Your task to perform on an android device: Open Yahoo.com Image 0: 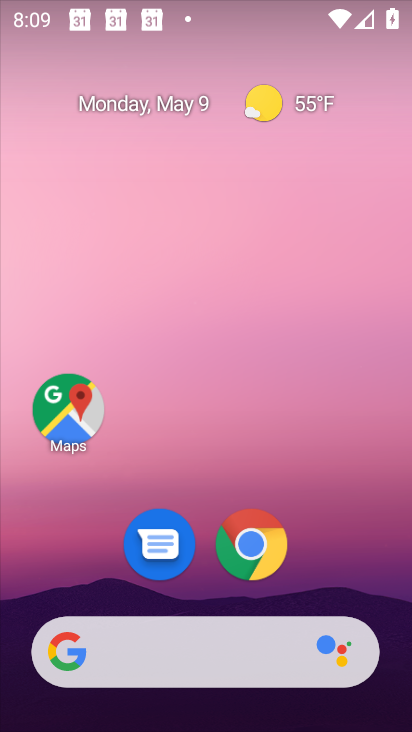
Step 0: click (241, 545)
Your task to perform on an android device: Open Yahoo.com Image 1: 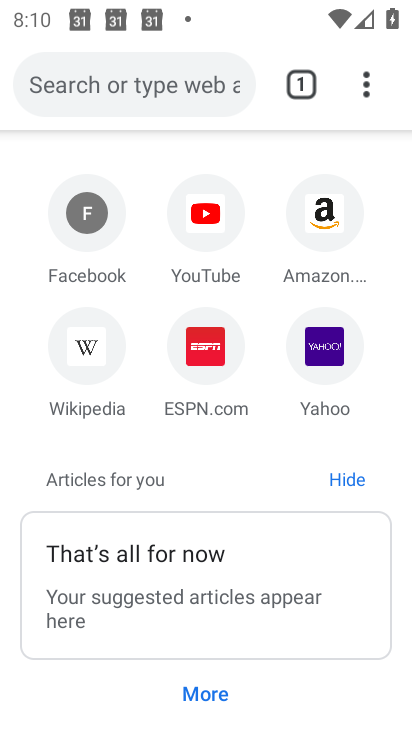
Step 1: click (309, 327)
Your task to perform on an android device: Open Yahoo.com Image 2: 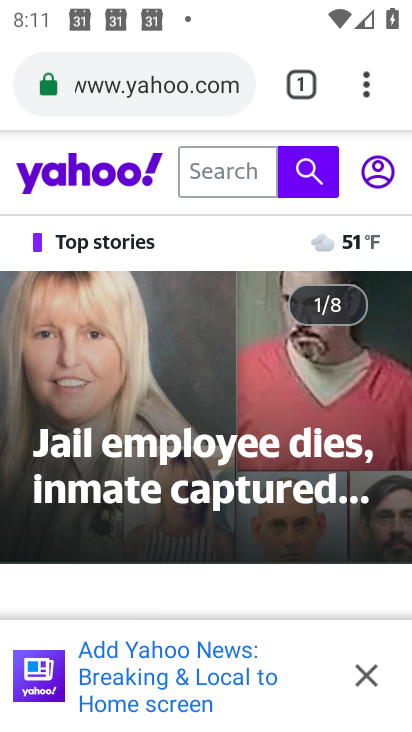
Step 2: task complete